Your task to perform on an android device: add a label to a message in the gmail app Image 0: 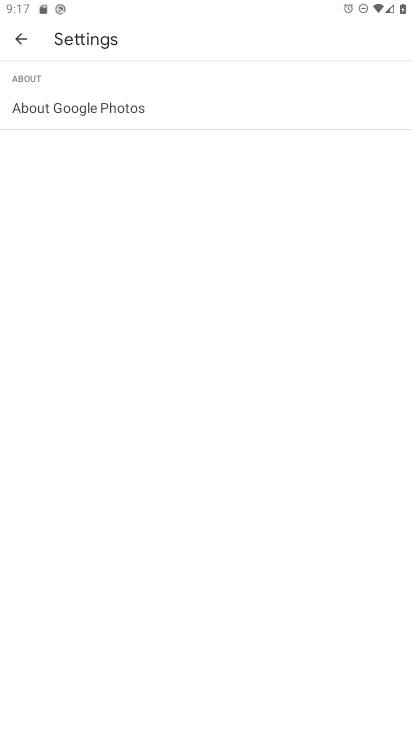
Step 0: press home button
Your task to perform on an android device: add a label to a message in the gmail app Image 1: 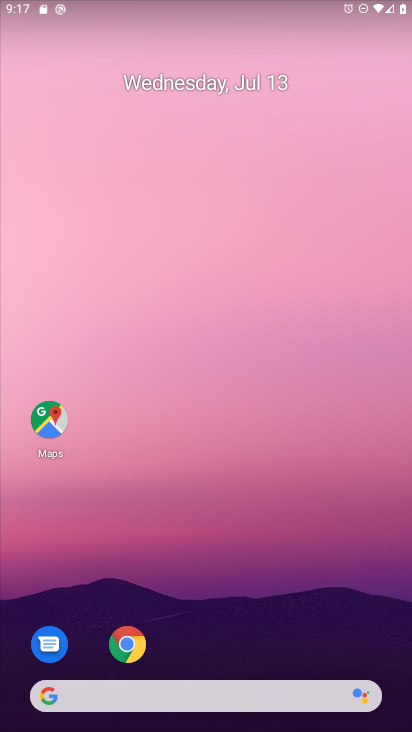
Step 1: drag from (270, 615) to (272, 60)
Your task to perform on an android device: add a label to a message in the gmail app Image 2: 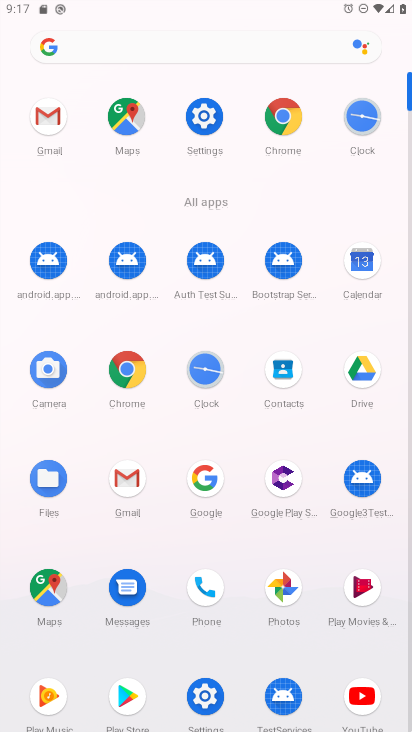
Step 2: click (48, 115)
Your task to perform on an android device: add a label to a message in the gmail app Image 3: 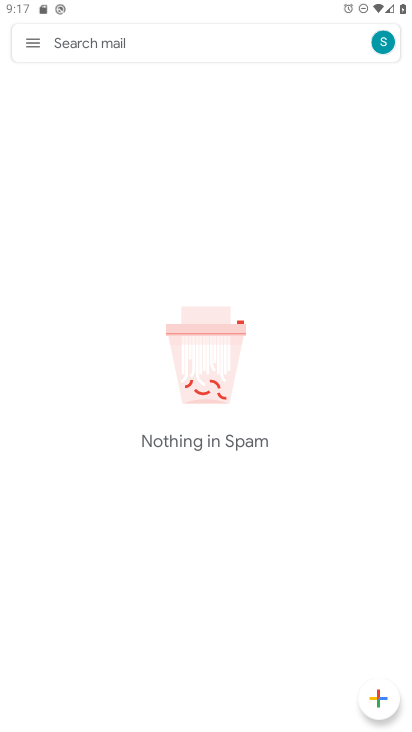
Step 3: click (36, 48)
Your task to perform on an android device: add a label to a message in the gmail app Image 4: 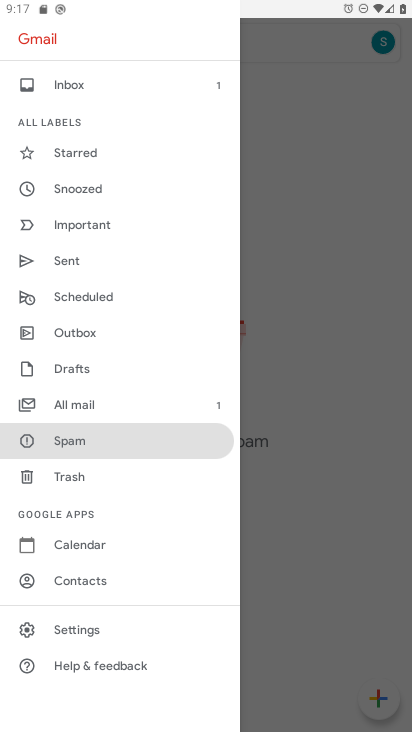
Step 4: click (81, 402)
Your task to perform on an android device: add a label to a message in the gmail app Image 5: 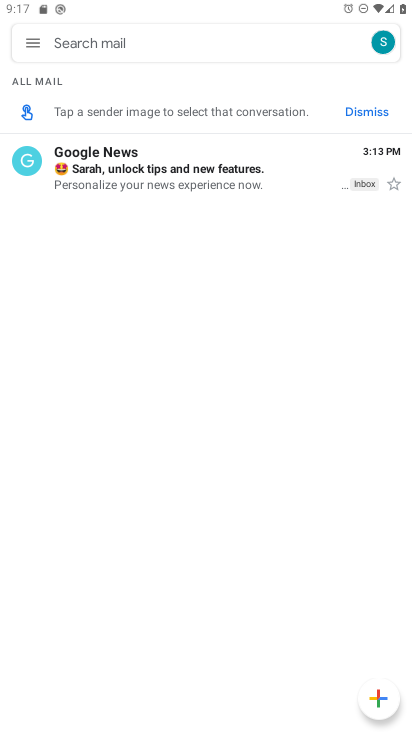
Step 5: click (122, 154)
Your task to perform on an android device: add a label to a message in the gmail app Image 6: 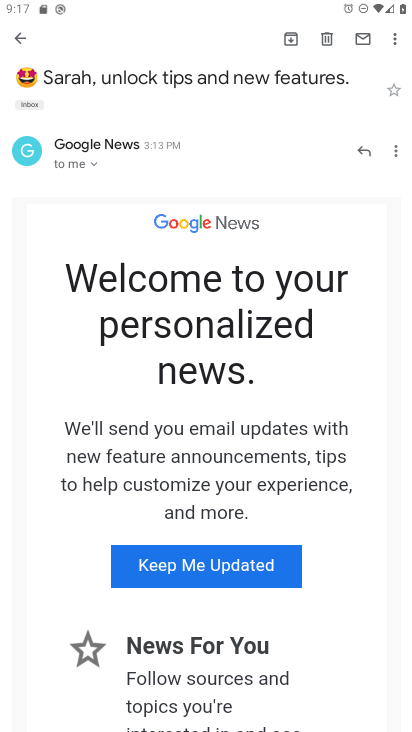
Step 6: click (394, 38)
Your task to perform on an android device: add a label to a message in the gmail app Image 7: 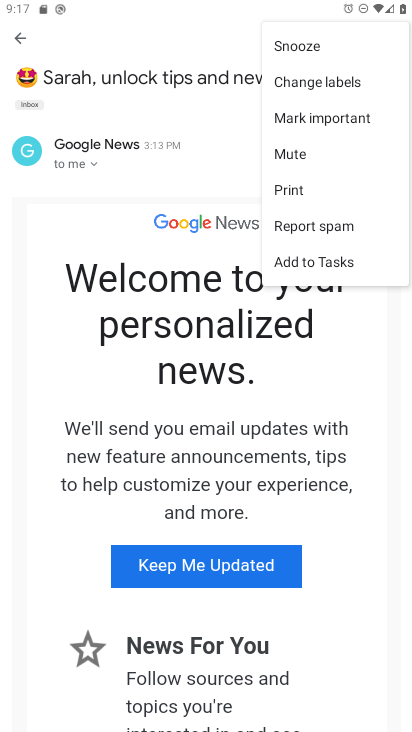
Step 7: click (360, 81)
Your task to perform on an android device: add a label to a message in the gmail app Image 8: 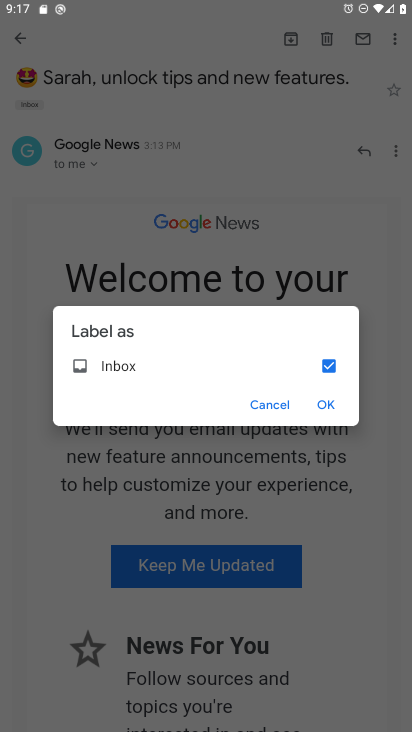
Step 8: click (335, 404)
Your task to perform on an android device: add a label to a message in the gmail app Image 9: 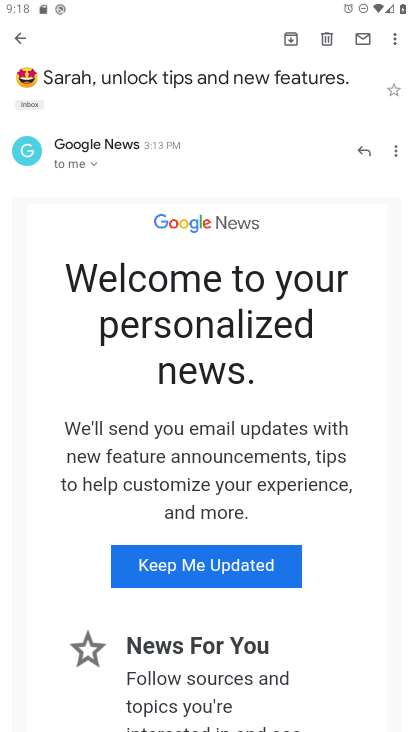
Step 9: task complete